Your task to perform on an android device: What's the weather today? Image 0: 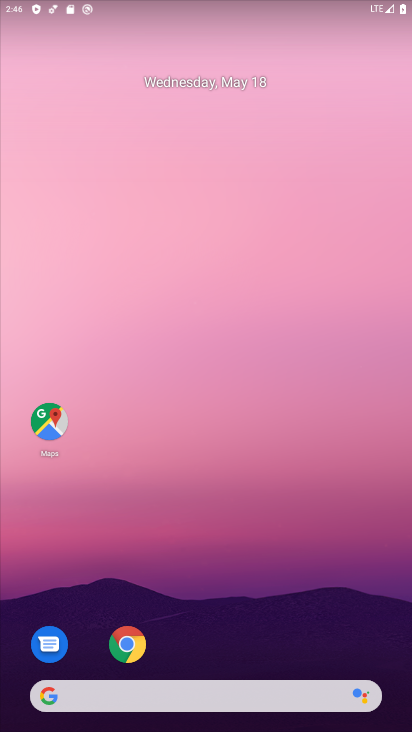
Step 0: drag from (228, 624) to (196, 294)
Your task to perform on an android device: What's the weather today? Image 1: 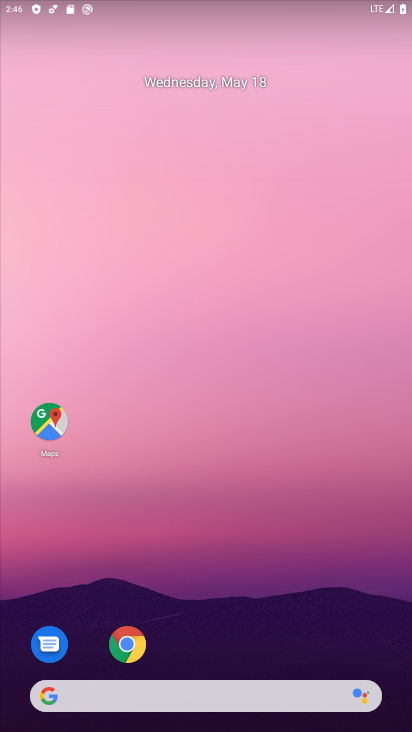
Step 1: drag from (173, 626) to (169, 254)
Your task to perform on an android device: What's the weather today? Image 2: 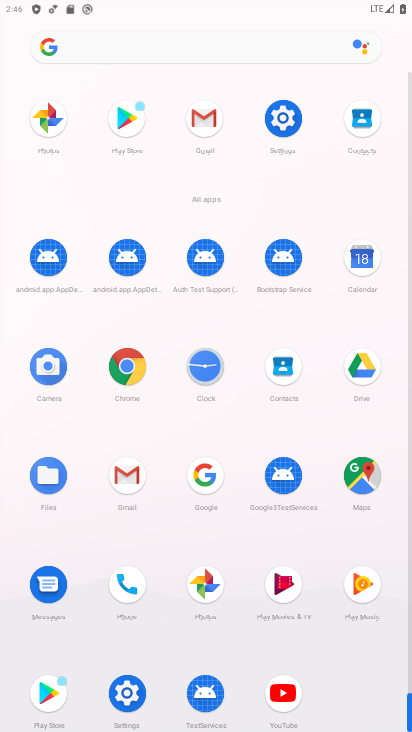
Step 2: click (206, 481)
Your task to perform on an android device: What's the weather today? Image 3: 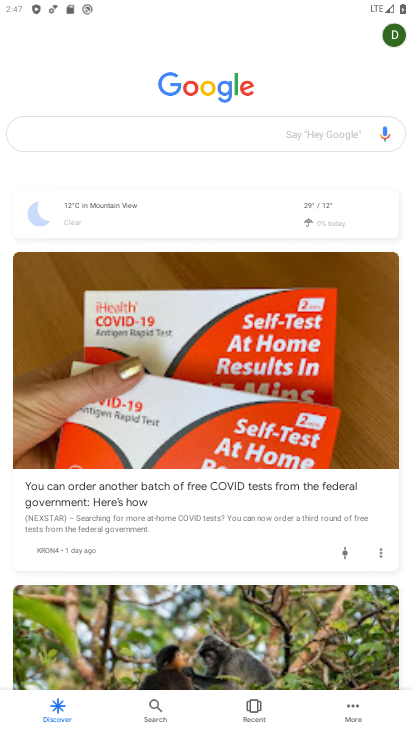
Step 3: click (88, 215)
Your task to perform on an android device: What's the weather today? Image 4: 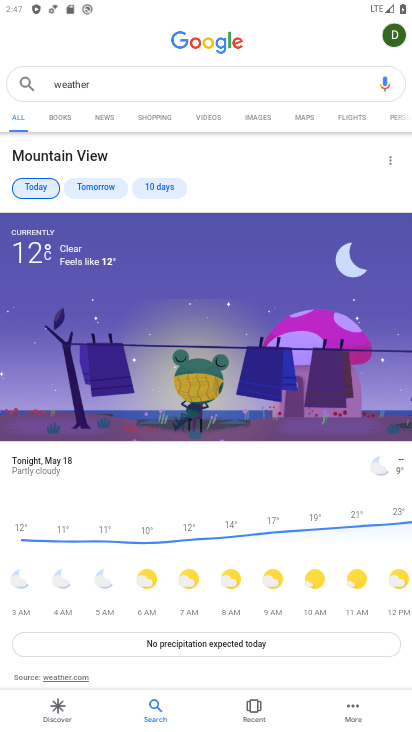
Step 4: task complete